Your task to perform on an android device: change the upload size in google photos Image 0: 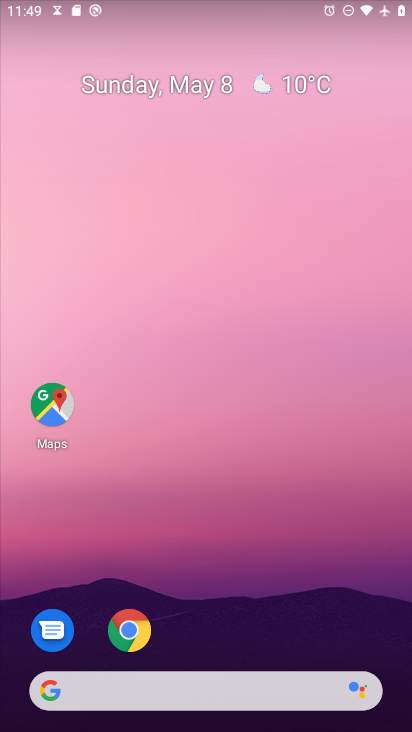
Step 0: drag from (188, 686) to (326, 300)
Your task to perform on an android device: change the upload size in google photos Image 1: 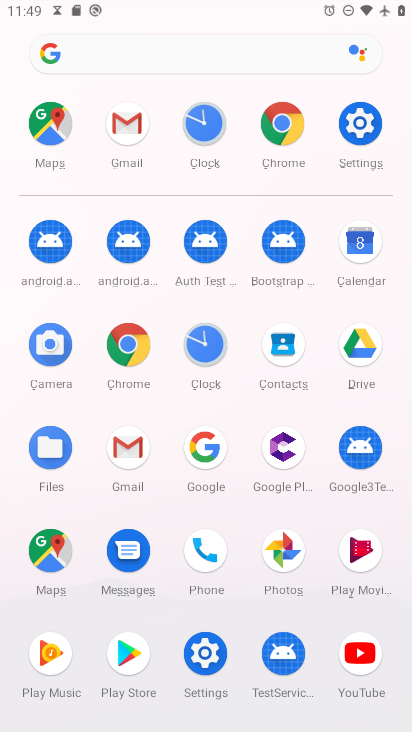
Step 1: click (290, 555)
Your task to perform on an android device: change the upload size in google photos Image 2: 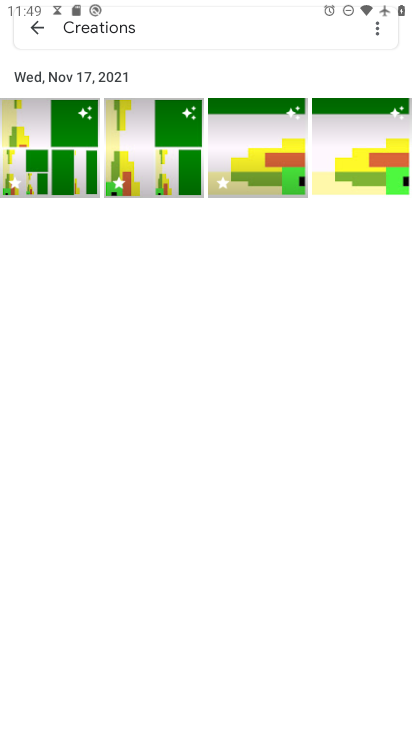
Step 2: click (39, 30)
Your task to perform on an android device: change the upload size in google photos Image 3: 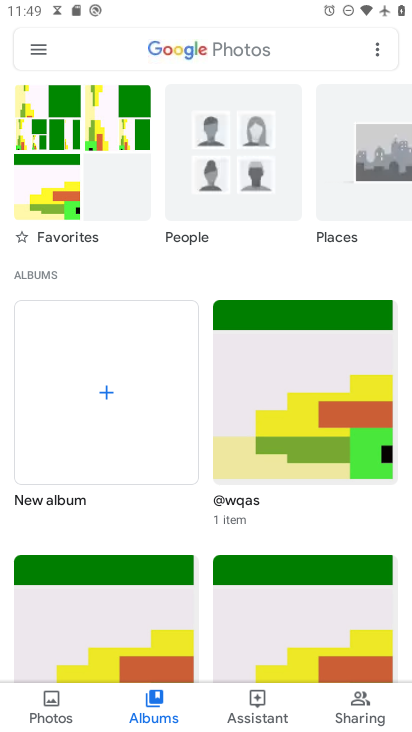
Step 3: click (33, 49)
Your task to perform on an android device: change the upload size in google photos Image 4: 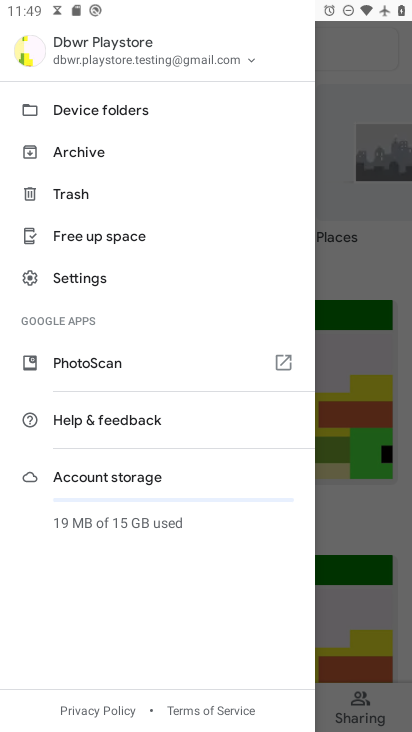
Step 4: click (107, 281)
Your task to perform on an android device: change the upload size in google photos Image 5: 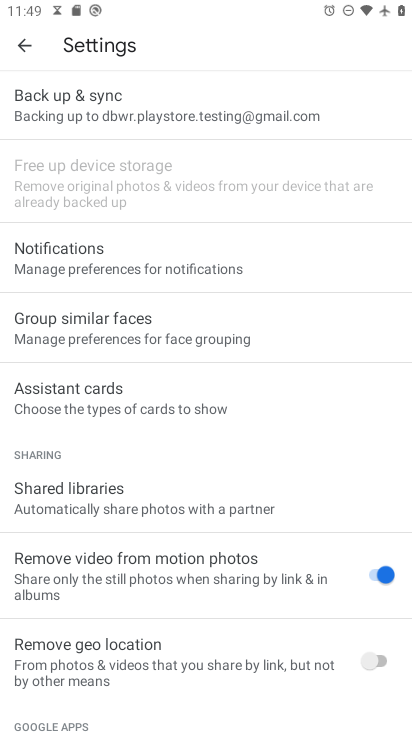
Step 5: click (183, 116)
Your task to perform on an android device: change the upload size in google photos Image 6: 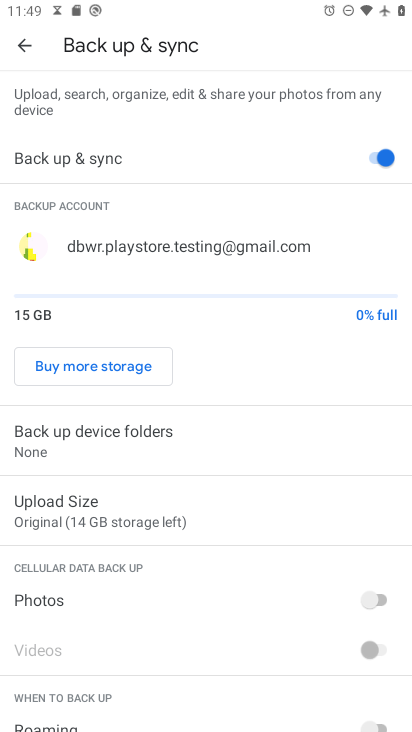
Step 6: click (105, 162)
Your task to perform on an android device: change the upload size in google photos Image 7: 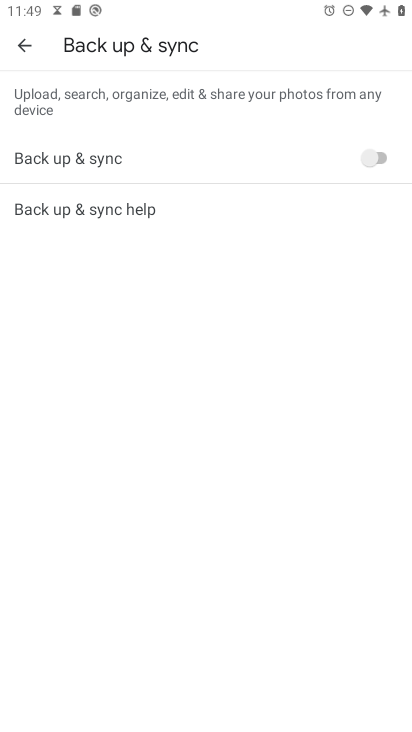
Step 7: click (30, 43)
Your task to perform on an android device: change the upload size in google photos Image 8: 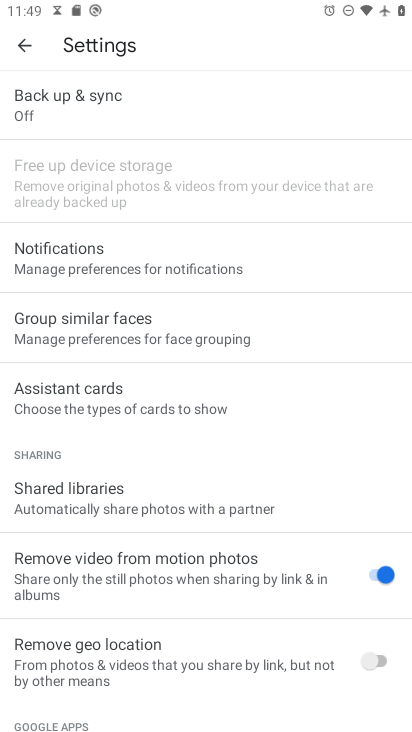
Step 8: click (160, 97)
Your task to perform on an android device: change the upload size in google photos Image 9: 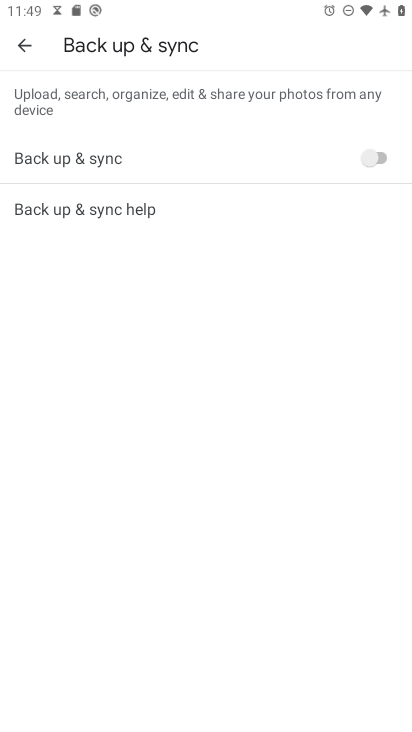
Step 9: click (378, 159)
Your task to perform on an android device: change the upload size in google photos Image 10: 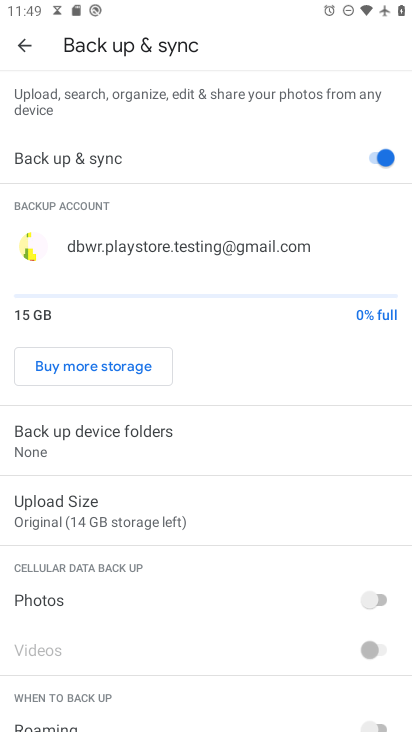
Step 10: click (142, 521)
Your task to perform on an android device: change the upload size in google photos Image 11: 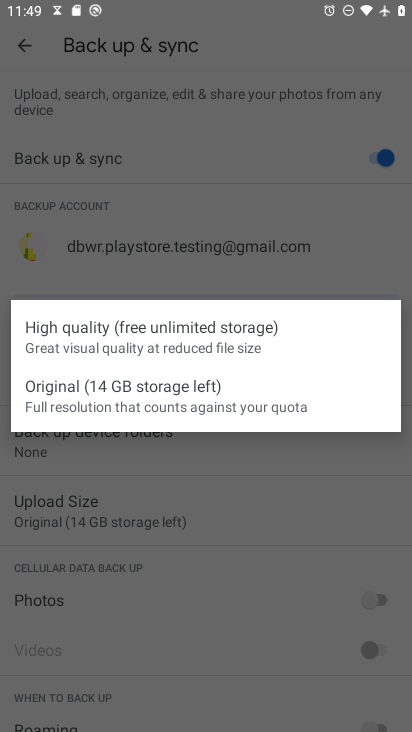
Step 11: click (96, 320)
Your task to perform on an android device: change the upload size in google photos Image 12: 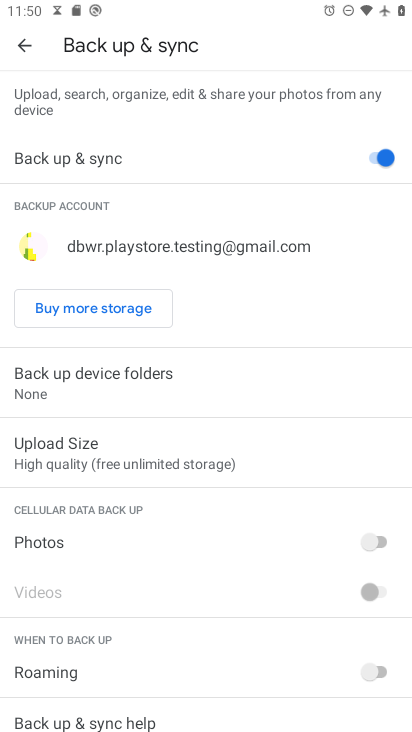
Step 12: task complete